Your task to perform on an android device: change timer sound Image 0: 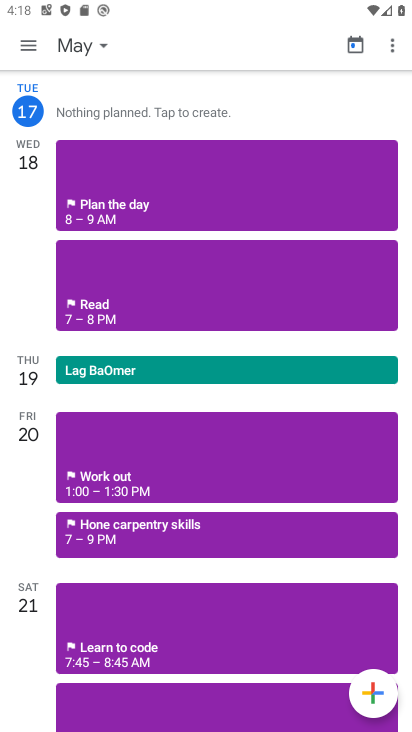
Step 0: press home button
Your task to perform on an android device: change timer sound Image 1: 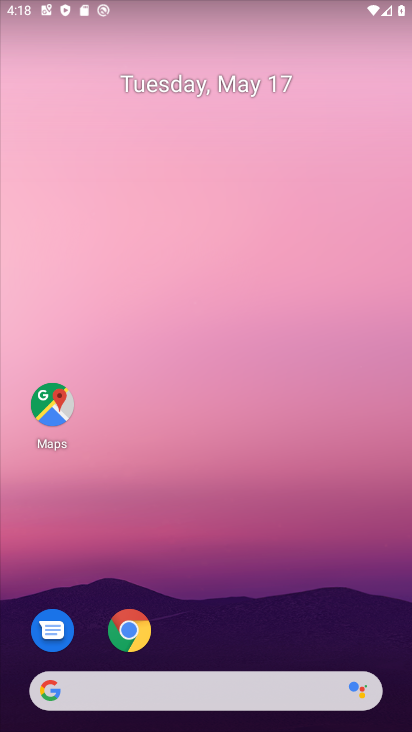
Step 1: drag from (221, 723) to (215, 27)
Your task to perform on an android device: change timer sound Image 2: 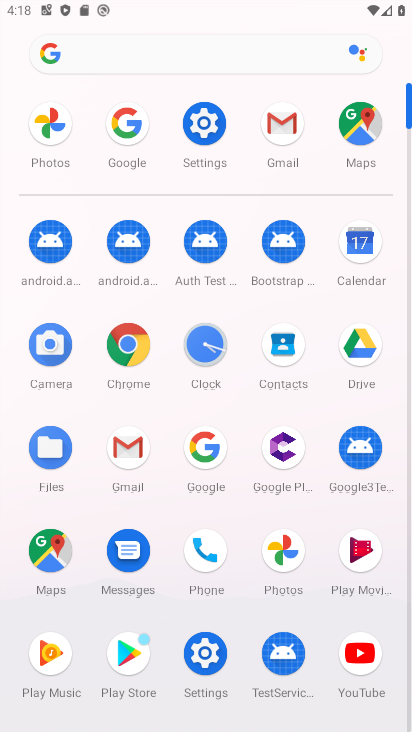
Step 2: click (204, 344)
Your task to perform on an android device: change timer sound Image 3: 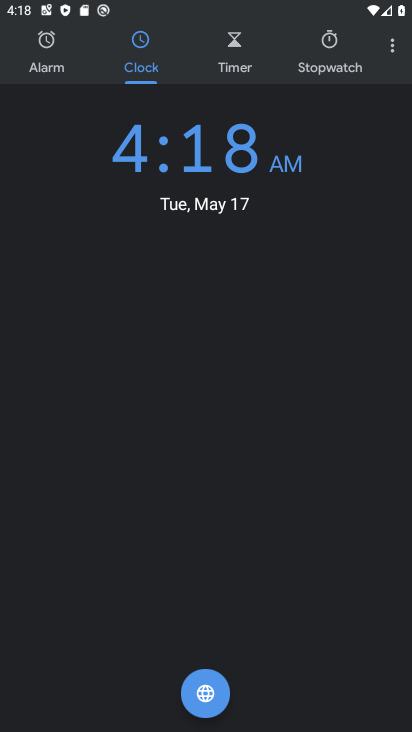
Step 3: click (394, 47)
Your task to perform on an android device: change timer sound Image 4: 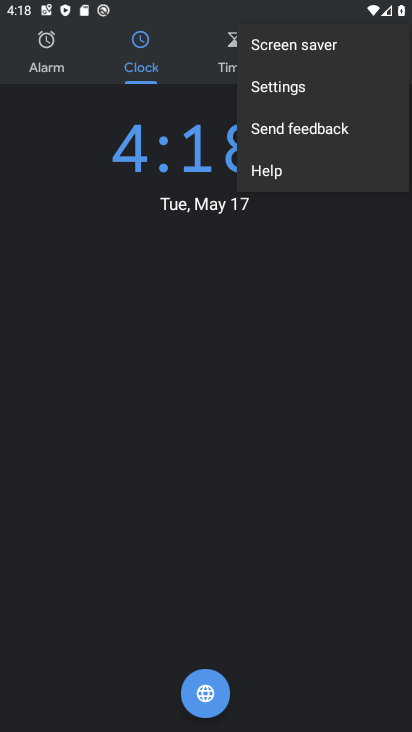
Step 4: click (282, 83)
Your task to perform on an android device: change timer sound Image 5: 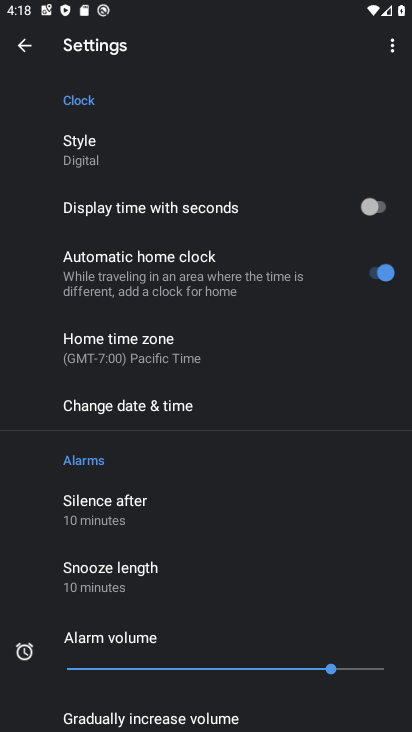
Step 5: drag from (117, 488) to (115, 352)
Your task to perform on an android device: change timer sound Image 6: 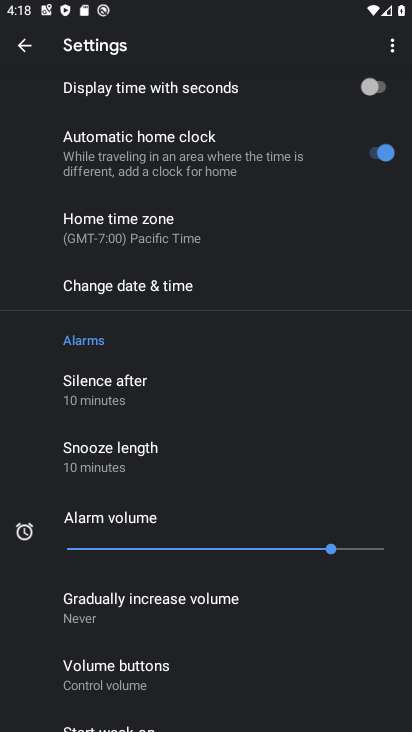
Step 6: drag from (121, 654) to (118, 280)
Your task to perform on an android device: change timer sound Image 7: 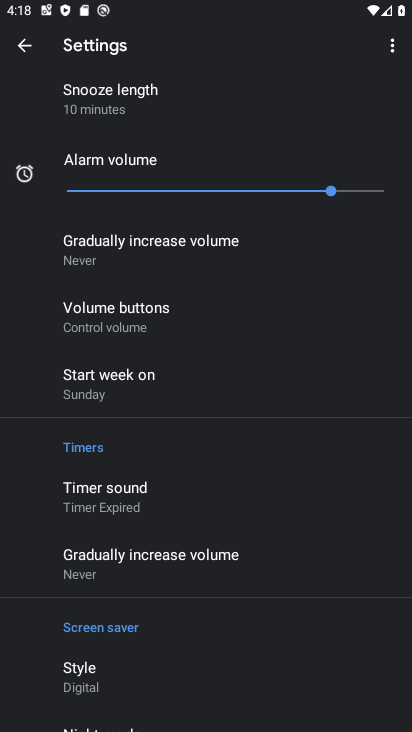
Step 7: click (84, 489)
Your task to perform on an android device: change timer sound Image 8: 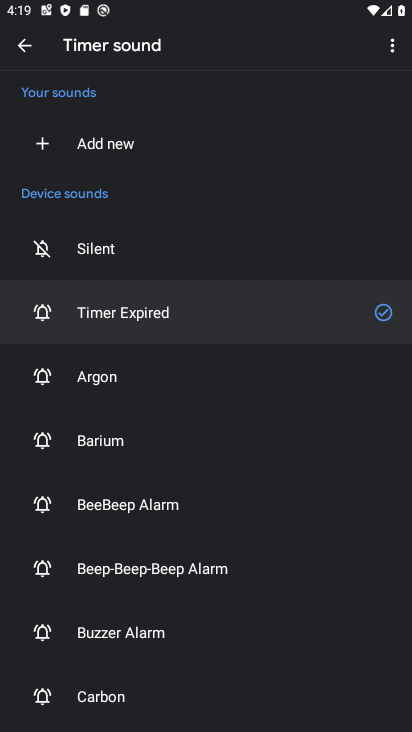
Step 8: click (83, 689)
Your task to perform on an android device: change timer sound Image 9: 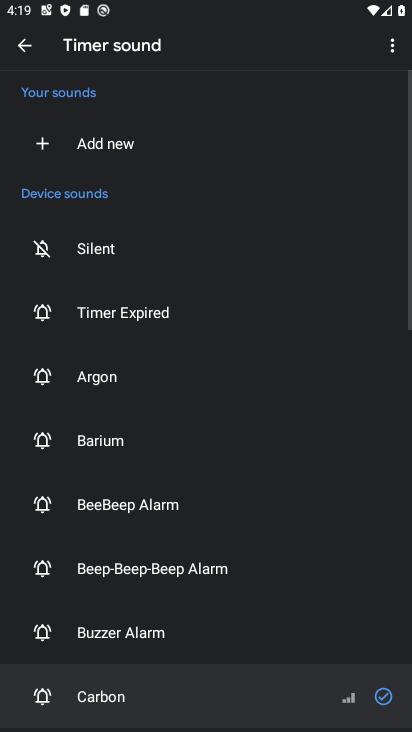
Step 9: task complete